Your task to perform on an android device: manage bookmarks in the chrome app Image 0: 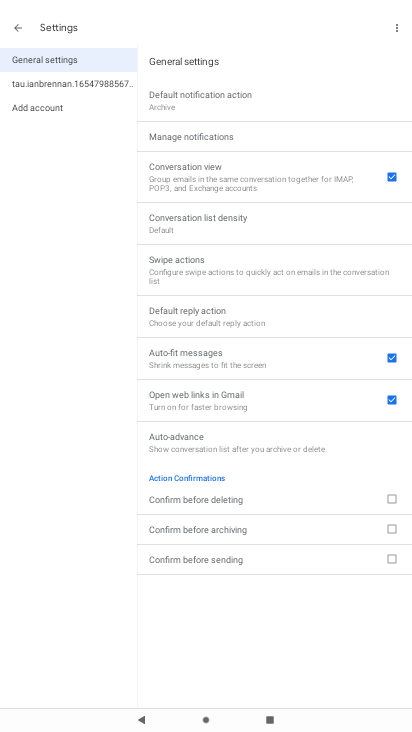
Step 0: press home button
Your task to perform on an android device: manage bookmarks in the chrome app Image 1: 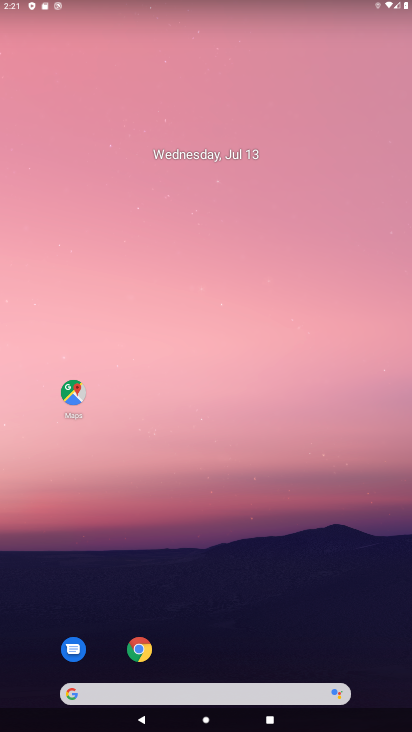
Step 1: click (140, 648)
Your task to perform on an android device: manage bookmarks in the chrome app Image 2: 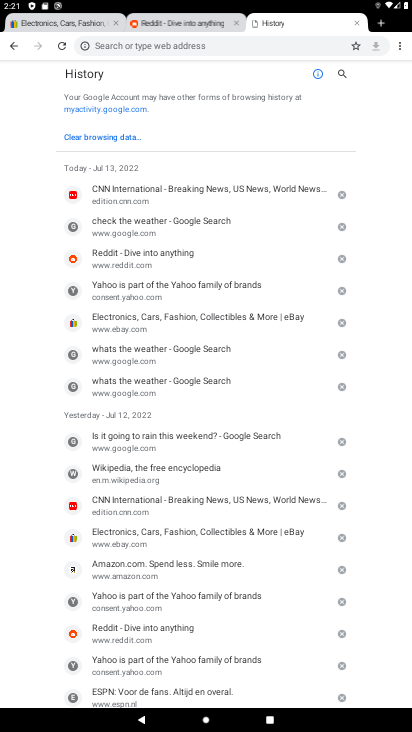
Step 2: click (399, 53)
Your task to perform on an android device: manage bookmarks in the chrome app Image 3: 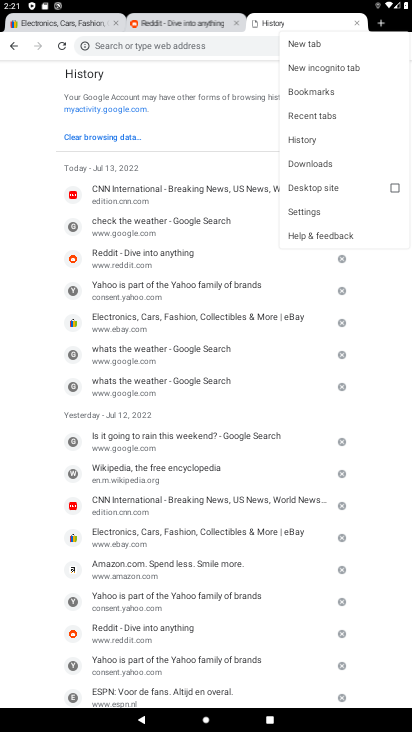
Step 3: click (324, 89)
Your task to perform on an android device: manage bookmarks in the chrome app Image 4: 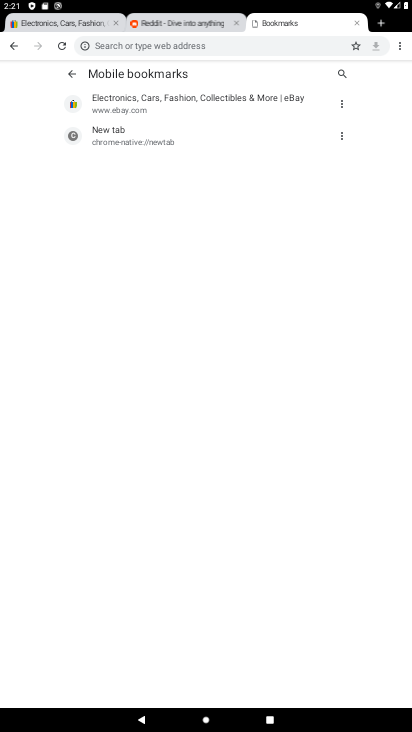
Step 4: click (344, 100)
Your task to perform on an android device: manage bookmarks in the chrome app Image 5: 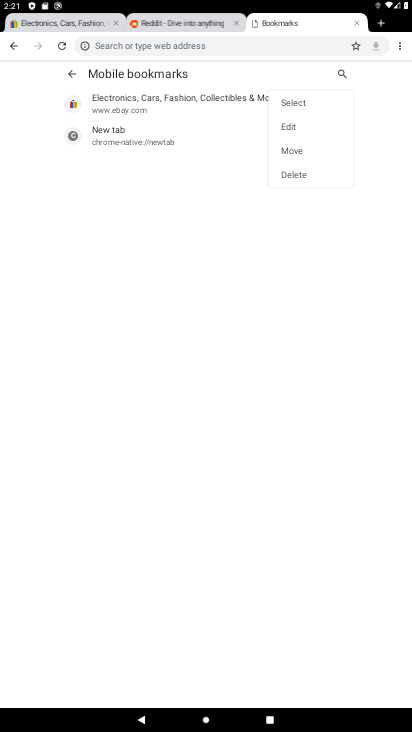
Step 5: click (289, 125)
Your task to perform on an android device: manage bookmarks in the chrome app Image 6: 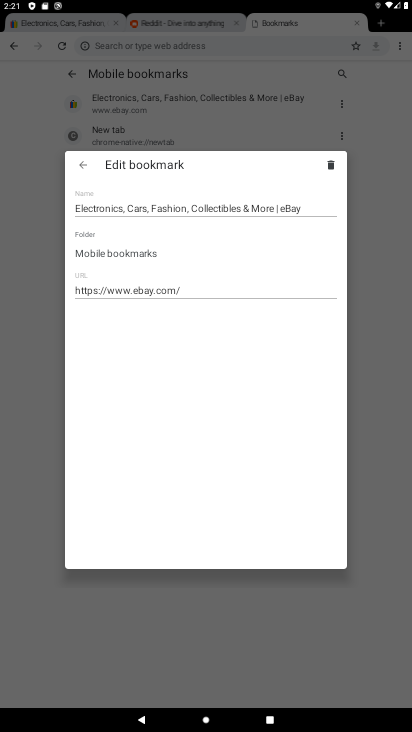
Step 6: task complete